Your task to perform on an android device: add a contact Image 0: 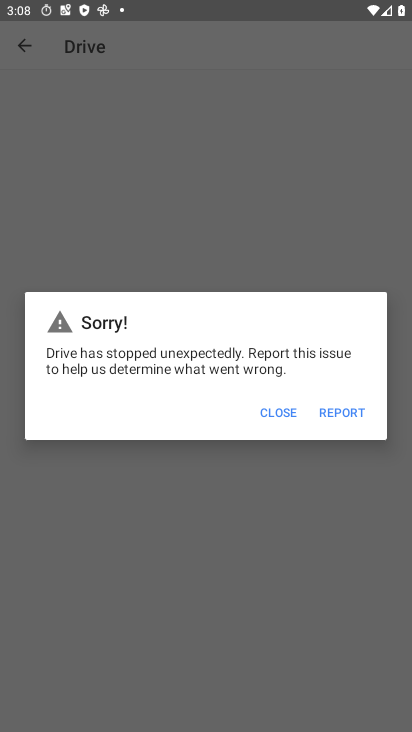
Step 0: press home button
Your task to perform on an android device: add a contact Image 1: 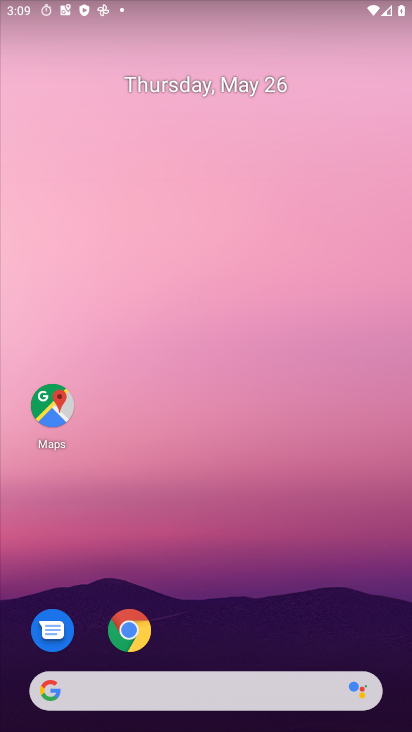
Step 1: drag from (225, 580) to (218, 93)
Your task to perform on an android device: add a contact Image 2: 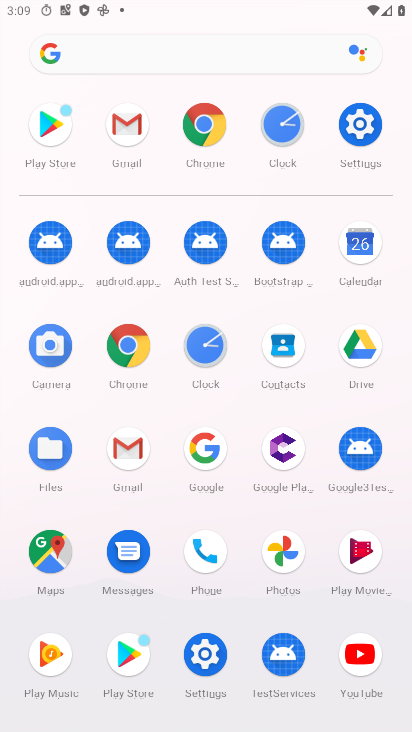
Step 2: click (277, 331)
Your task to perform on an android device: add a contact Image 3: 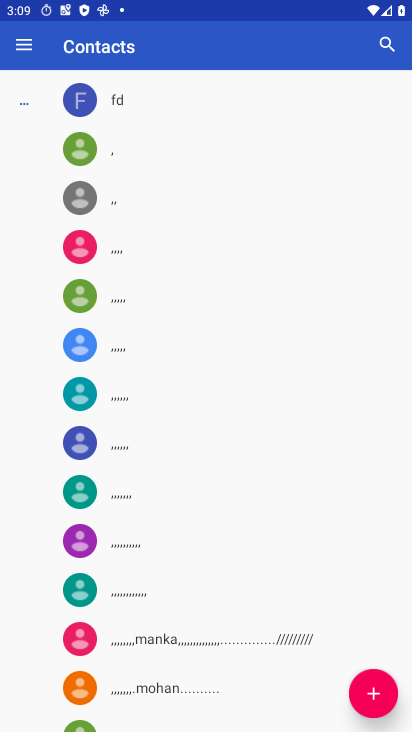
Step 3: click (361, 702)
Your task to perform on an android device: add a contact Image 4: 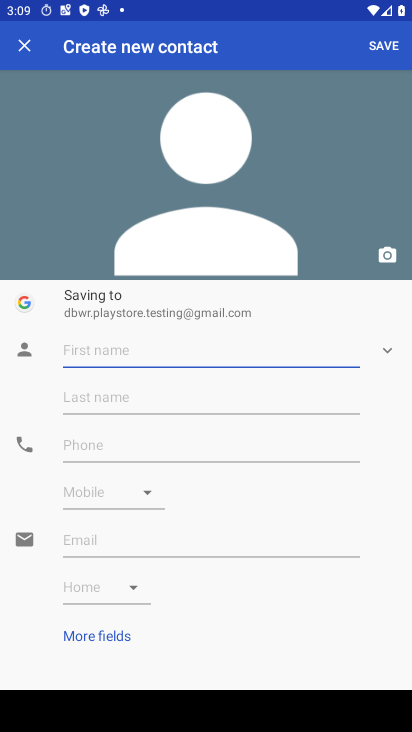
Step 4: type "dsgte"
Your task to perform on an android device: add a contact Image 5: 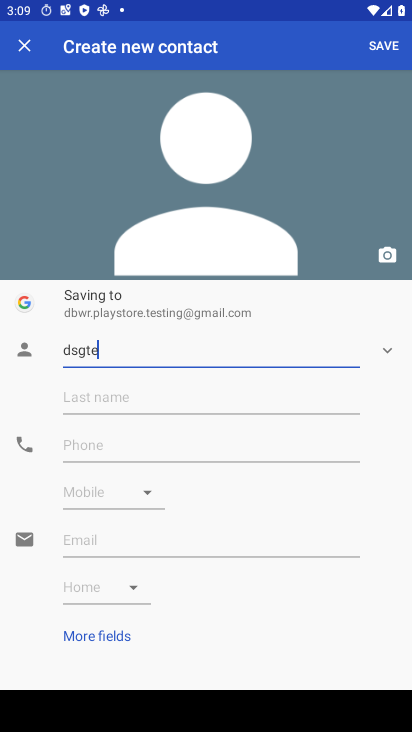
Step 5: click (196, 445)
Your task to perform on an android device: add a contact Image 6: 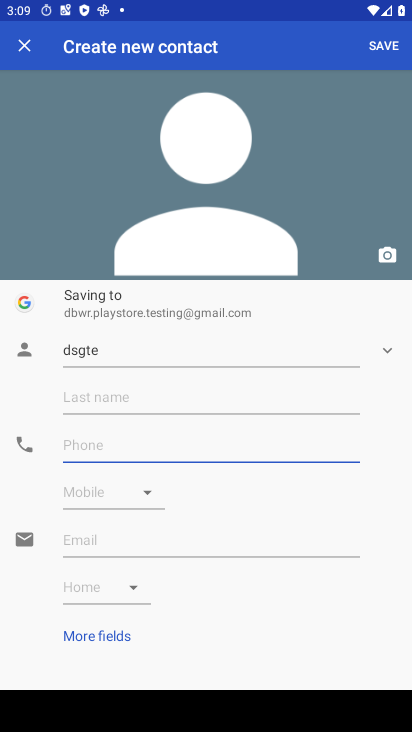
Step 6: type "57684"
Your task to perform on an android device: add a contact Image 7: 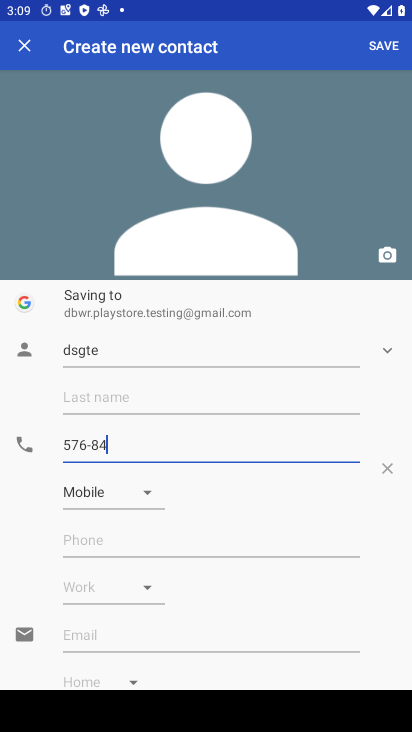
Step 7: click (384, 50)
Your task to perform on an android device: add a contact Image 8: 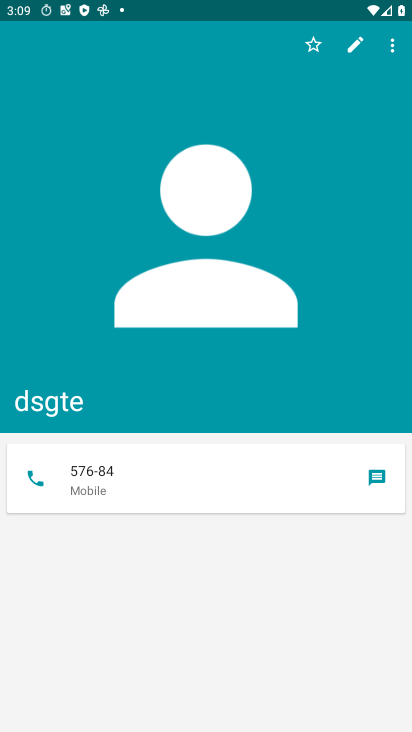
Step 8: task complete